Your task to perform on an android device: Go to accessibility settings Image 0: 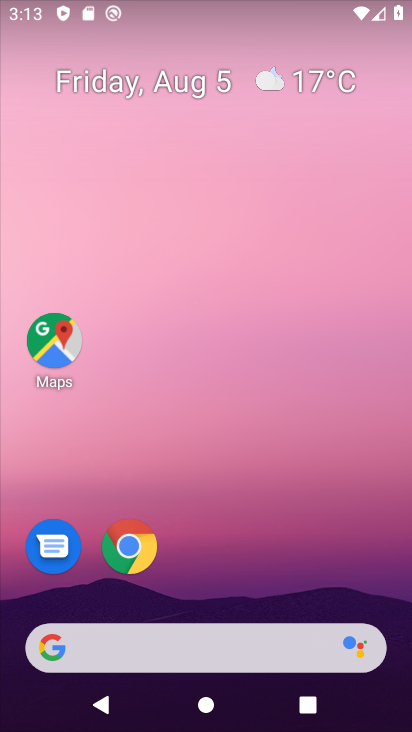
Step 0: press home button
Your task to perform on an android device: Go to accessibility settings Image 1: 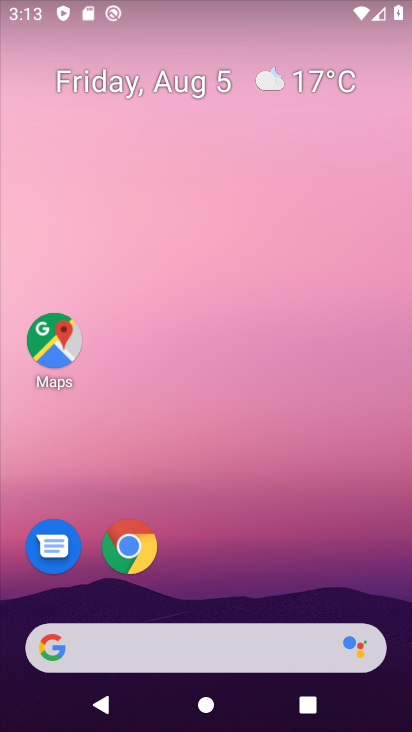
Step 1: drag from (341, 589) to (343, 186)
Your task to perform on an android device: Go to accessibility settings Image 2: 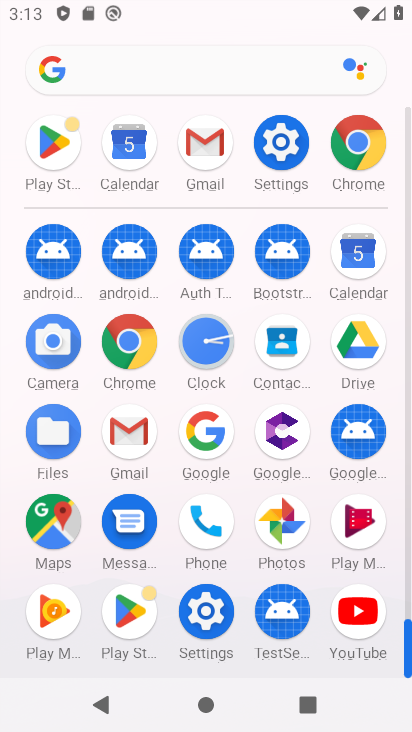
Step 2: click (284, 149)
Your task to perform on an android device: Go to accessibility settings Image 3: 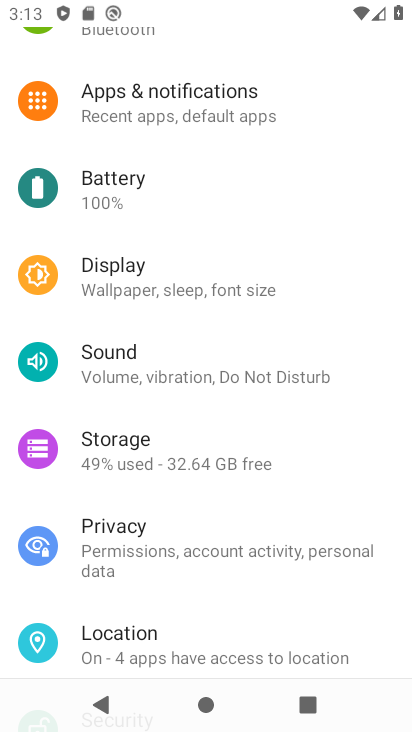
Step 3: drag from (342, 210) to (354, 303)
Your task to perform on an android device: Go to accessibility settings Image 4: 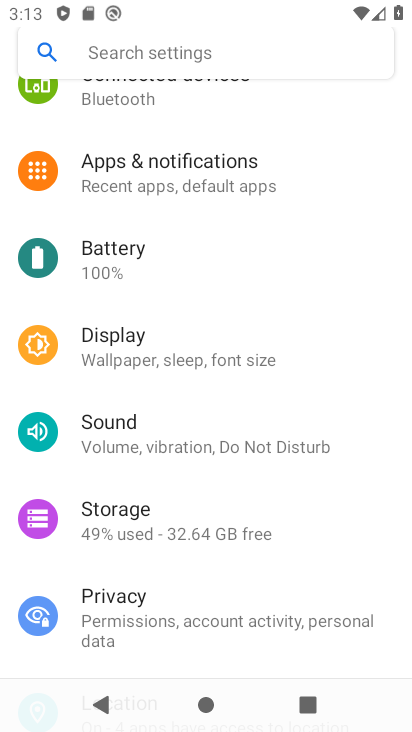
Step 4: drag from (351, 157) to (349, 304)
Your task to perform on an android device: Go to accessibility settings Image 5: 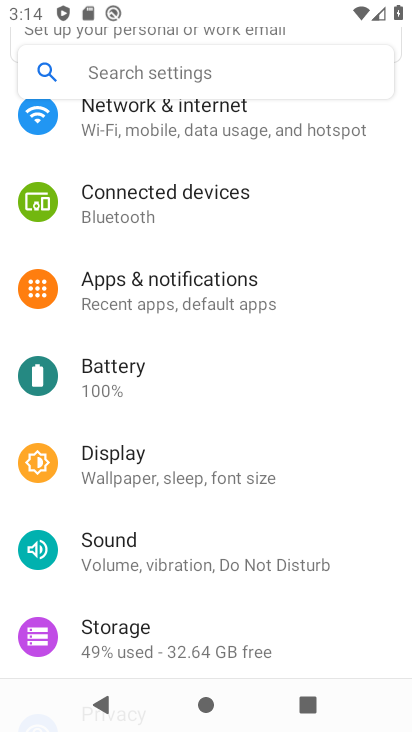
Step 5: drag from (359, 159) to (355, 321)
Your task to perform on an android device: Go to accessibility settings Image 6: 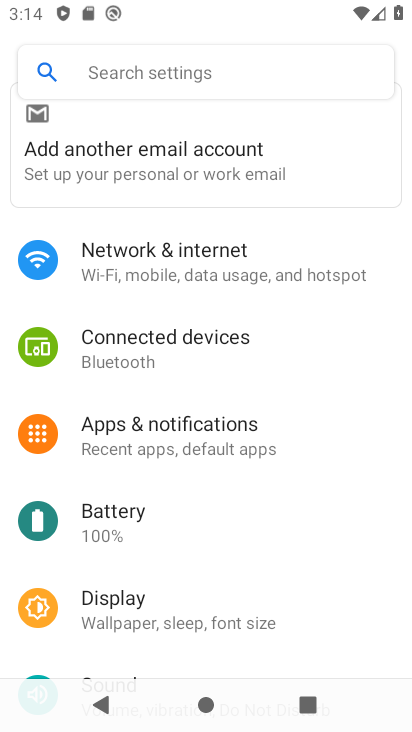
Step 6: drag from (365, 157) to (358, 382)
Your task to perform on an android device: Go to accessibility settings Image 7: 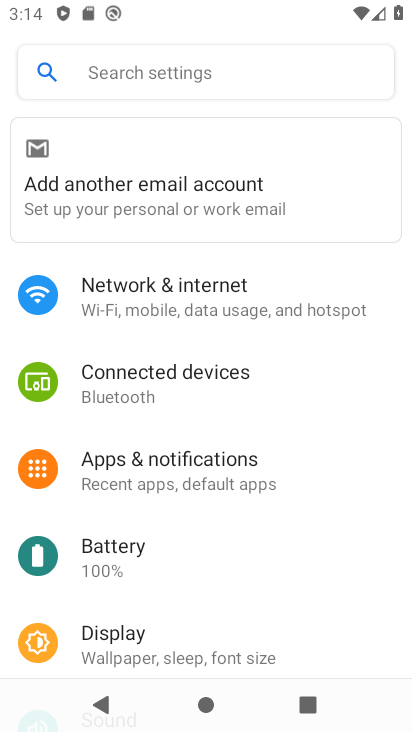
Step 7: drag from (320, 520) to (343, 376)
Your task to perform on an android device: Go to accessibility settings Image 8: 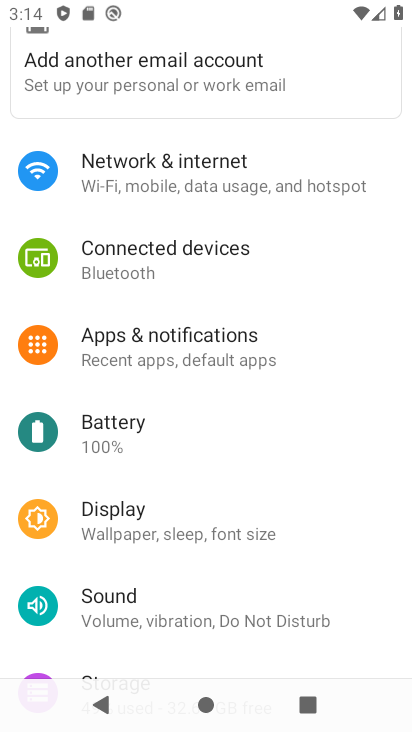
Step 8: drag from (343, 553) to (351, 366)
Your task to perform on an android device: Go to accessibility settings Image 9: 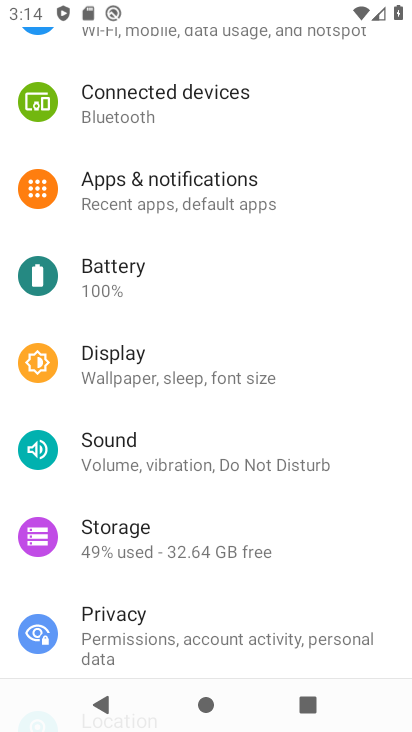
Step 9: drag from (330, 563) to (332, 390)
Your task to perform on an android device: Go to accessibility settings Image 10: 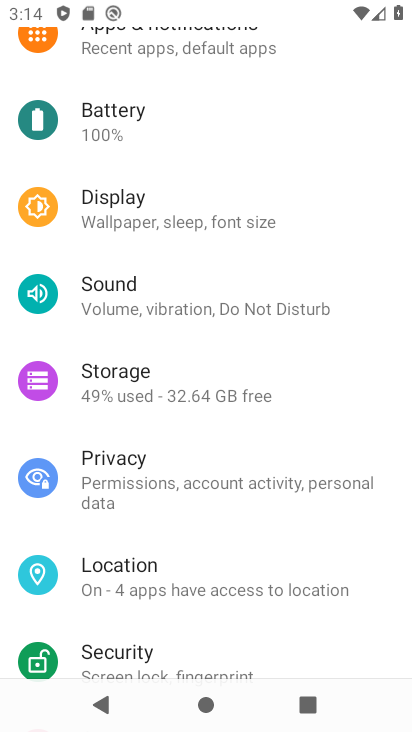
Step 10: drag from (345, 570) to (341, 397)
Your task to perform on an android device: Go to accessibility settings Image 11: 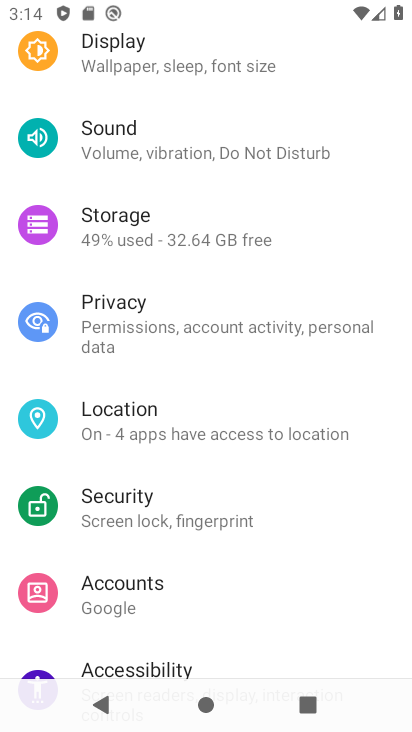
Step 11: drag from (329, 584) to (337, 405)
Your task to perform on an android device: Go to accessibility settings Image 12: 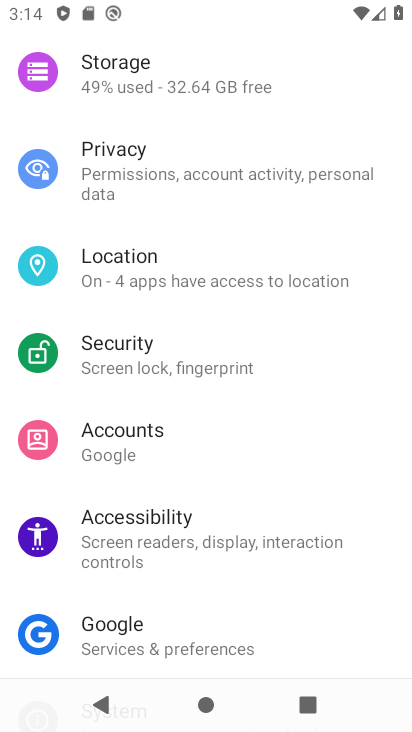
Step 12: drag from (317, 530) to (310, 403)
Your task to perform on an android device: Go to accessibility settings Image 13: 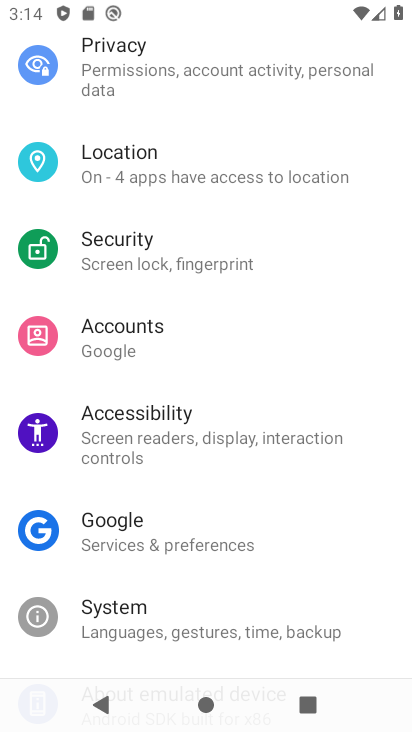
Step 13: click (287, 436)
Your task to perform on an android device: Go to accessibility settings Image 14: 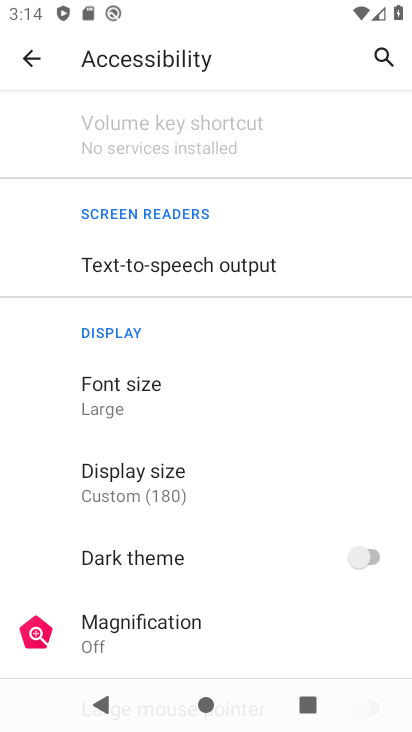
Step 14: task complete